Your task to perform on an android device: uninstall "Cash App" Image 0: 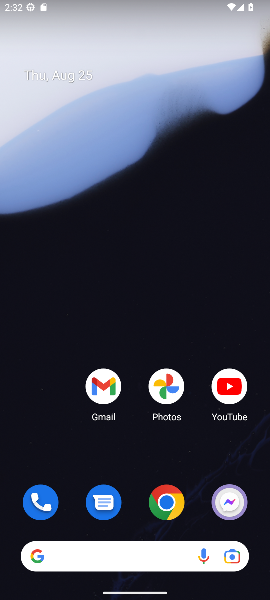
Step 0: drag from (133, 481) to (120, 57)
Your task to perform on an android device: uninstall "Cash App" Image 1: 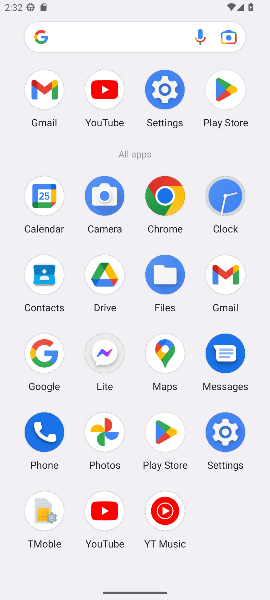
Step 1: click (208, 96)
Your task to perform on an android device: uninstall "Cash App" Image 2: 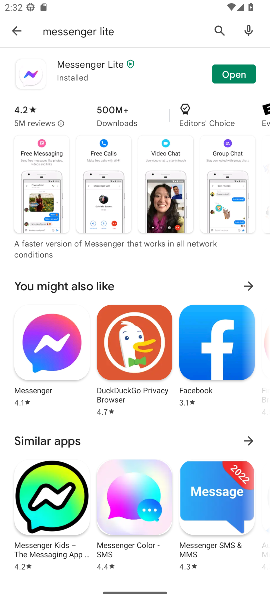
Step 2: click (223, 34)
Your task to perform on an android device: uninstall "Cash App" Image 3: 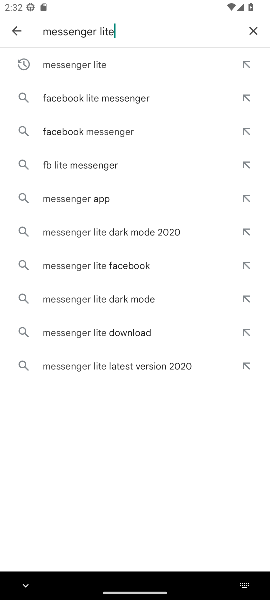
Step 3: click (252, 29)
Your task to perform on an android device: uninstall "Cash App" Image 4: 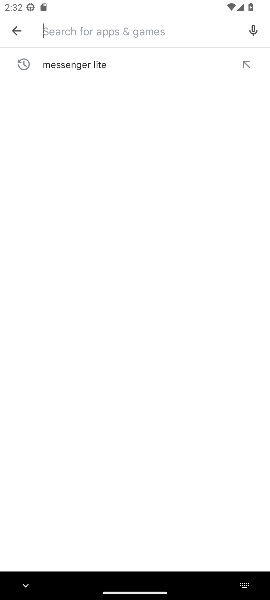
Step 4: type "cash app"
Your task to perform on an android device: uninstall "Cash App" Image 5: 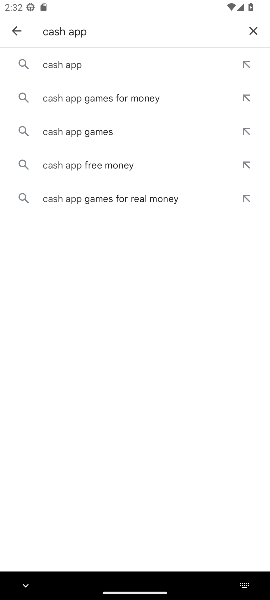
Step 5: click (66, 75)
Your task to perform on an android device: uninstall "Cash App" Image 6: 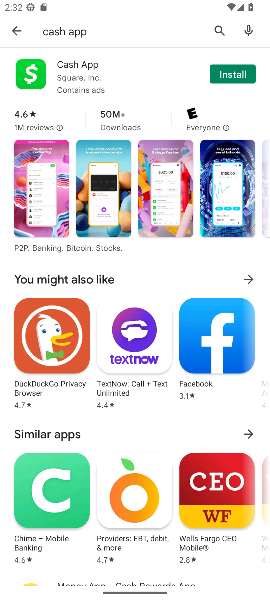
Step 6: click (218, 78)
Your task to perform on an android device: uninstall "Cash App" Image 7: 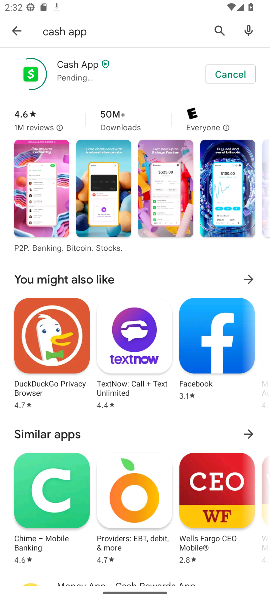
Step 7: task complete